Your task to perform on an android device: Open notification settings Image 0: 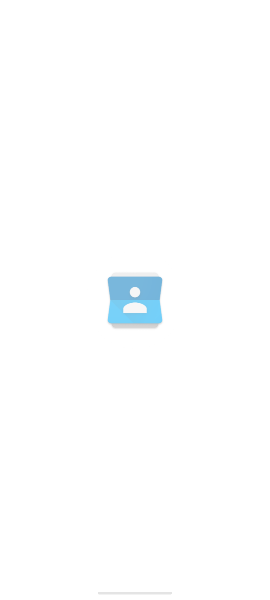
Step 0: drag from (186, 560) to (73, 185)
Your task to perform on an android device: Open notification settings Image 1: 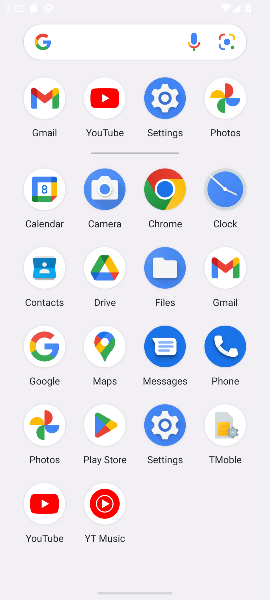
Step 1: drag from (114, 449) to (91, 267)
Your task to perform on an android device: Open notification settings Image 2: 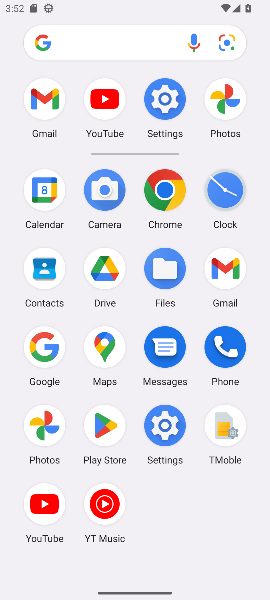
Step 2: click (171, 421)
Your task to perform on an android device: Open notification settings Image 3: 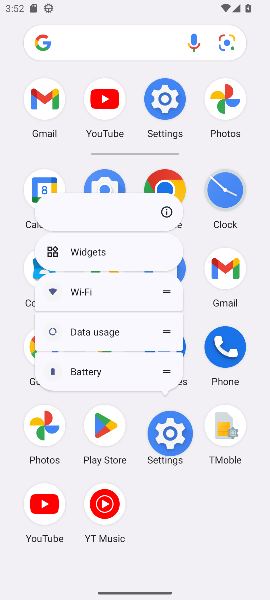
Step 3: click (176, 429)
Your task to perform on an android device: Open notification settings Image 4: 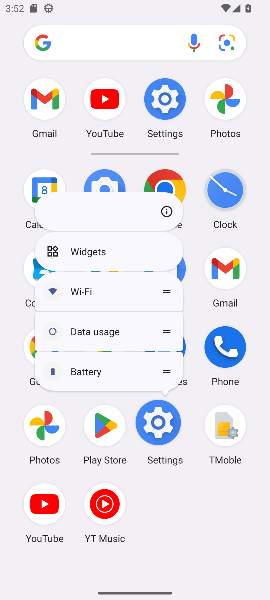
Step 4: click (166, 425)
Your task to perform on an android device: Open notification settings Image 5: 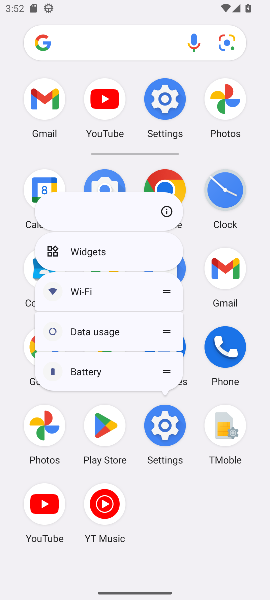
Step 5: click (154, 428)
Your task to perform on an android device: Open notification settings Image 6: 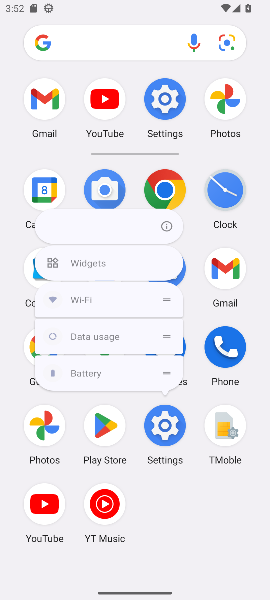
Step 6: click (155, 428)
Your task to perform on an android device: Open notification settings Image 7: 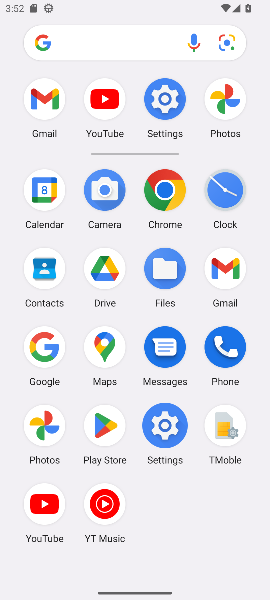
Step 7: click (158, 430)
Your task to perform on an android device: Open notification settings Image 8: 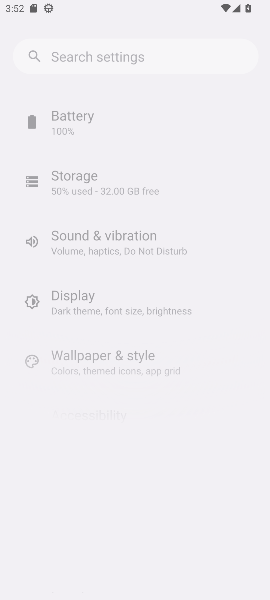
Step 8: click (158, 430)
Your task to perform on an android device: Open notification settings Image 9: 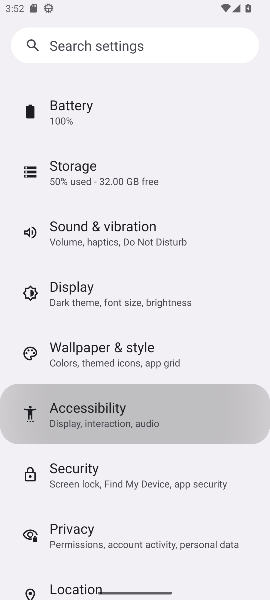
Step 9: click (158, 430)
Your task to perform on an android device: Open notification settings Image 10: 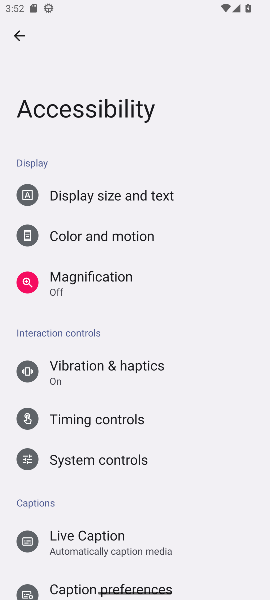
Step 10: click (14, 37)
Your task to perform on an android device: Open notification settings Image 11: 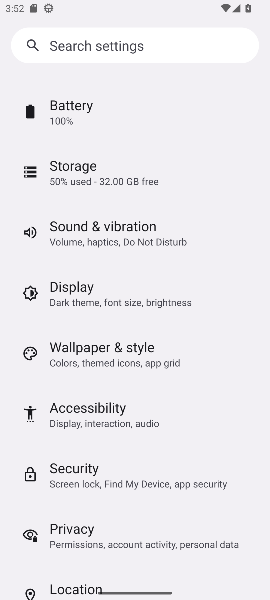
Step 11: drag from (118, 459) to (80, 245)
Your task to perform on an android device: Open notification settings Image 12: 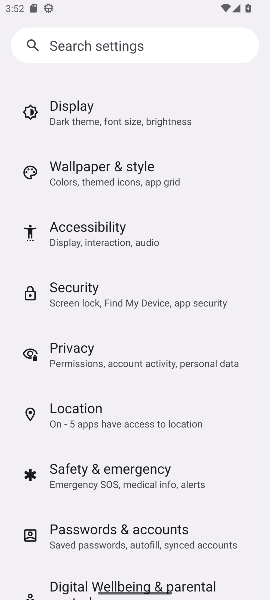
Step 12: drag from (158, 509) to (118, 297)
Your task to perform on an android device: Open notification settings Image 13: 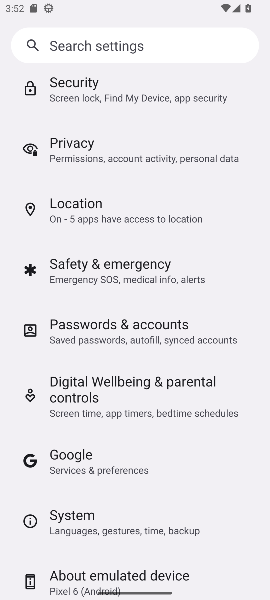
Step 13: drag from (93, 196) to (121, 511)
Your task to perform on an android device: Open notification settings Image 14: 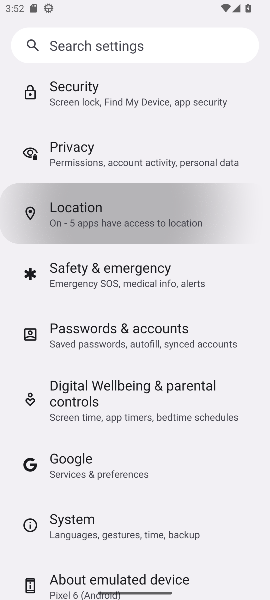
Step 14: drag from (82, 272) to (132, 555)
Your task to perform on an android device: Open notification settings Image 15: 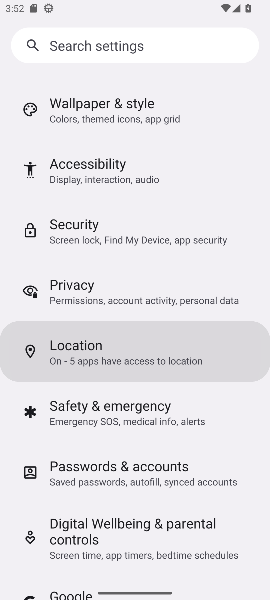
Step 15: drag from (81, 161) to (124, 441)
Your task to perform on an android device: Open notification settings Image 16: 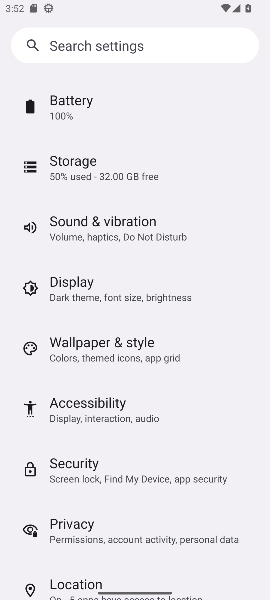
Step 16: drag from (69, 189) to (99, 401)
Your task to perform on an android device: Open notification settings Image 17: 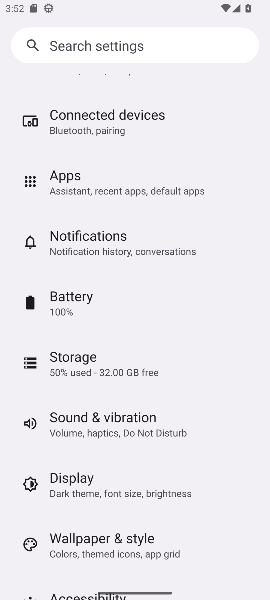
Step 17: drag from (88, 195) to (122, 418)
Your task to perform on an android device: Open notification settings Image 18: 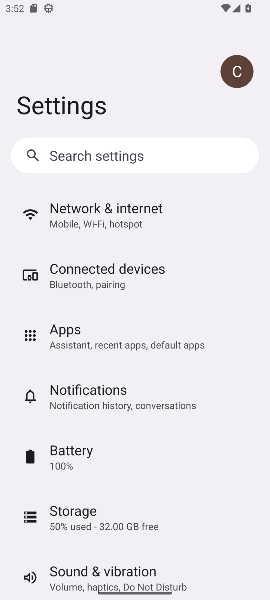
Step 18: drag from (111, 184) to (139, 398)
Your task to perform on an android device: Open notification settings Image 19: 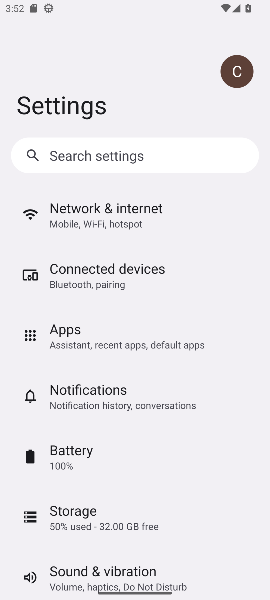
Step 19: click (81, 398)
Your task to perform on an android device: Open notification settings Image 20: 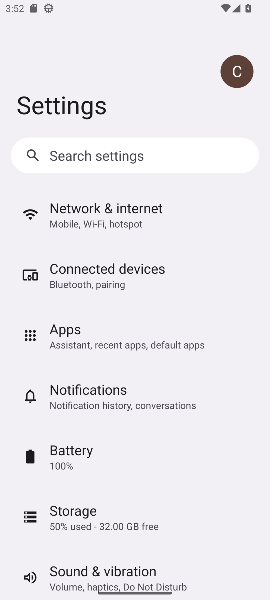
Step 20: click (81, 398)
Your task to perform on an android device: Open notification settings Image 21: 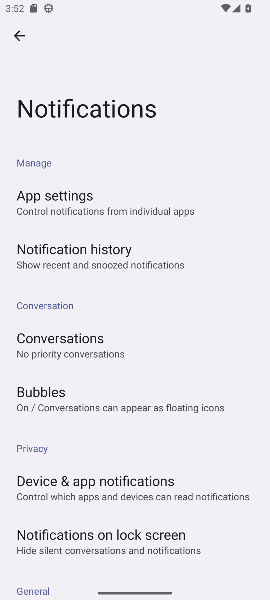
Step 21: task complete